Your task to perform on an android device: install app "Airtel Thanks" Image 0: 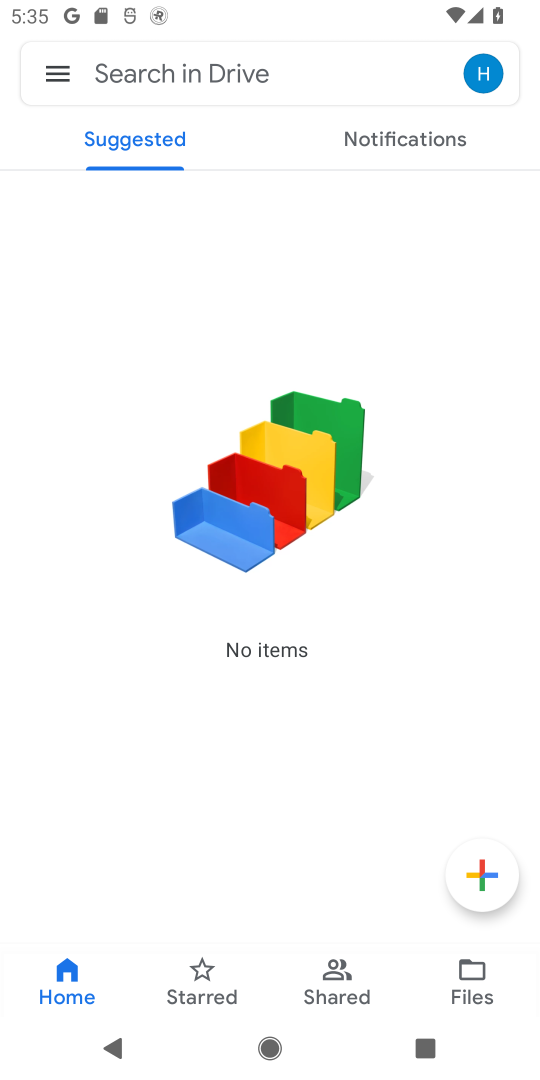
Step 0: press back button
Your task to perform on an android device: install app "Airtel Thanks" Image 1: 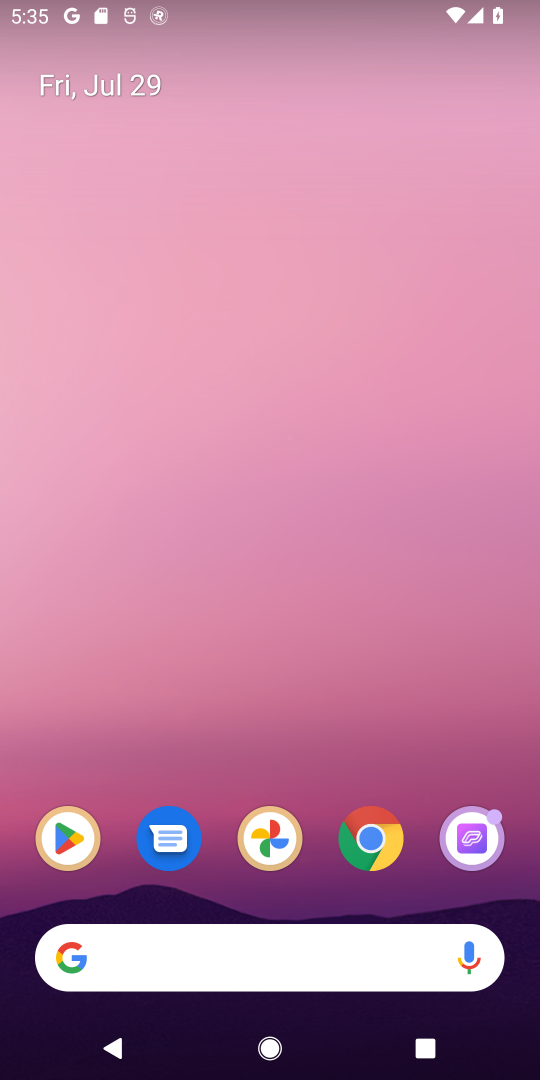
Step 1: click (55, 839)
Your task to perform on an android device: install app "Airtel Thanks" Image 2: 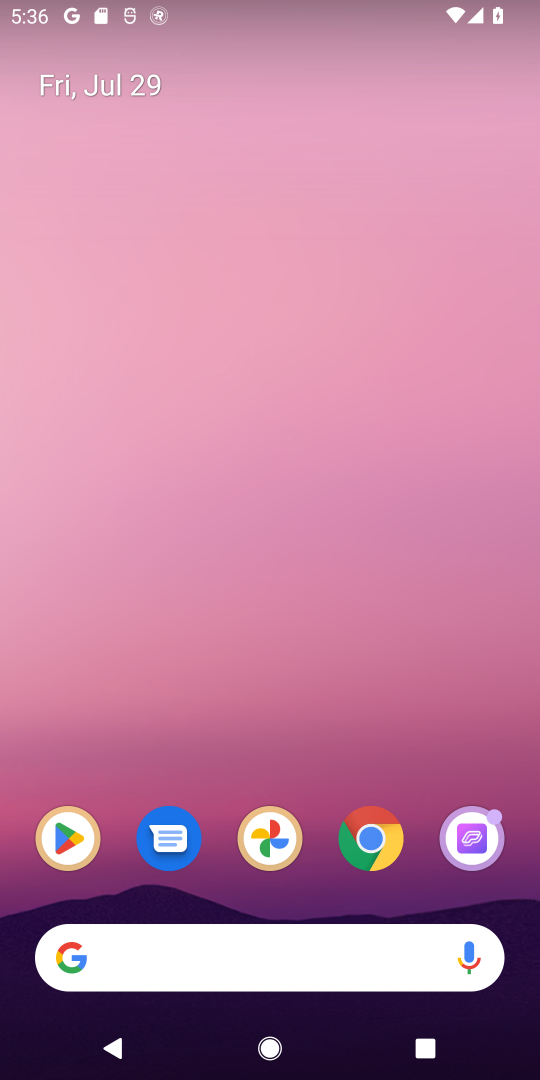
Step 2: click (14, 812)
Your task to perform on an android device: install app "Airtel Thanks" Image 3: 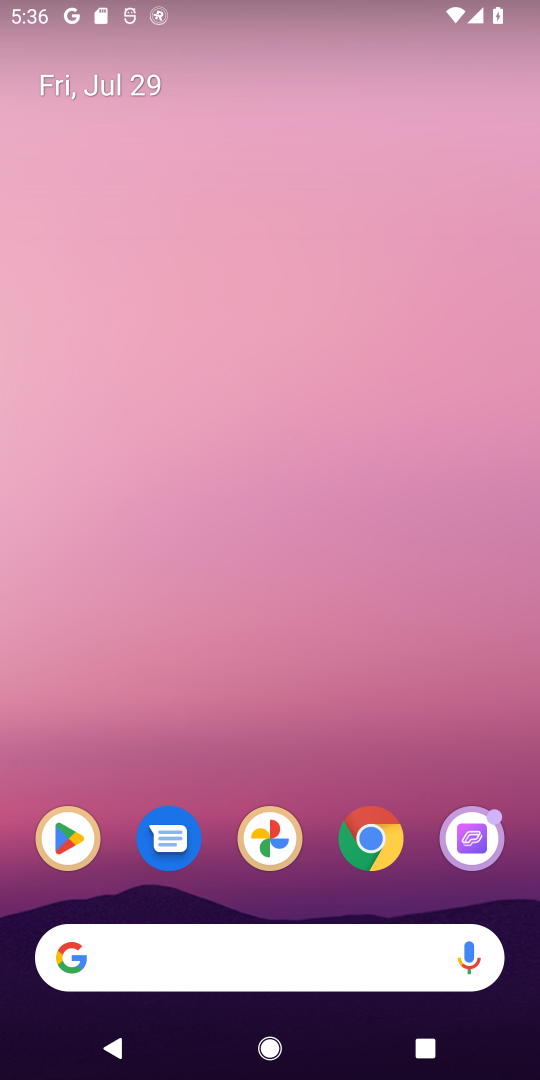
Step 3: click (44, 824)
Your task to perform on an android device: install app "Airtel Thanks" Image 4: 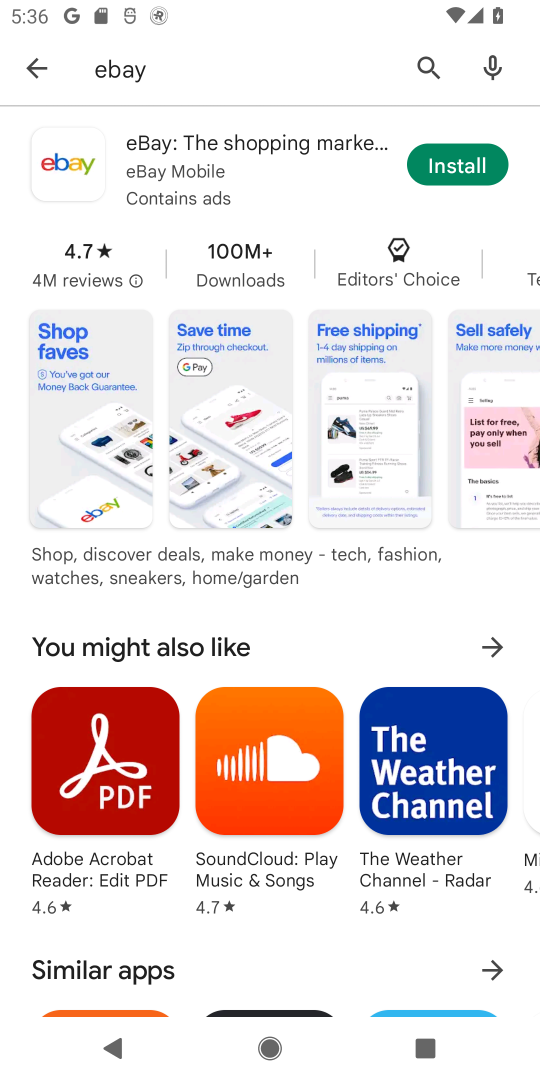
Step 4: click (414, 64)
Your task to perform on an android device: install app "Airtel Thanks" Image 5: 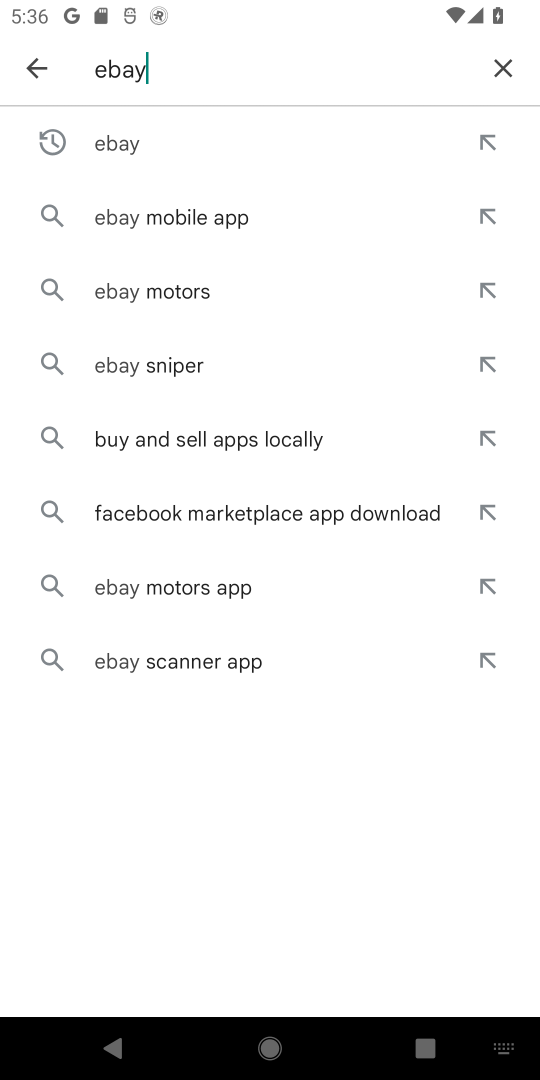
Step 5: click (513, 56)
Your task to perform on an android device: install app "Airtel Thanks" Image 6: 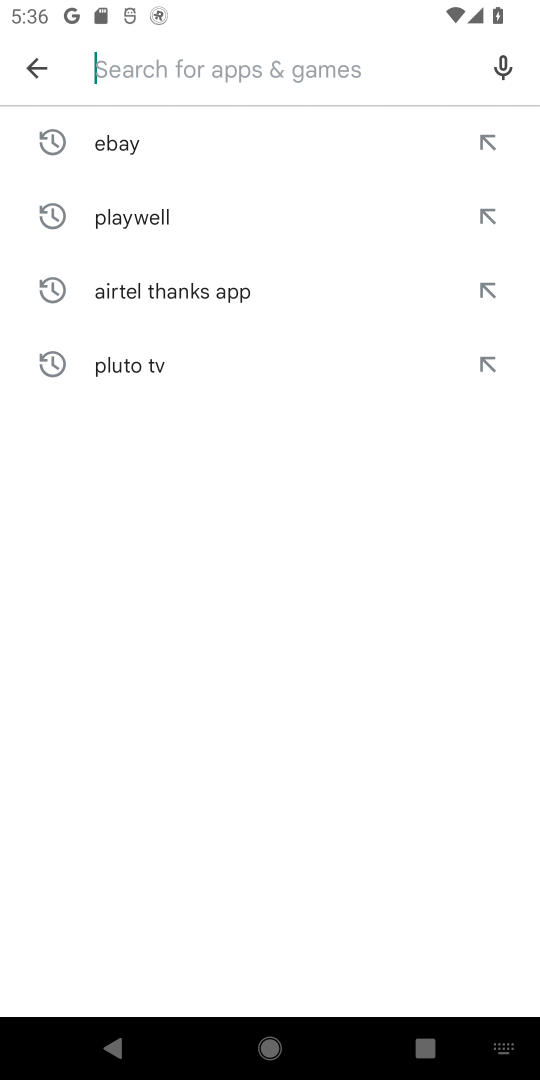
Step 6: type "airtel thanks"
Your task to perform on an android device: install app "Airtel Thanks" Image 7: 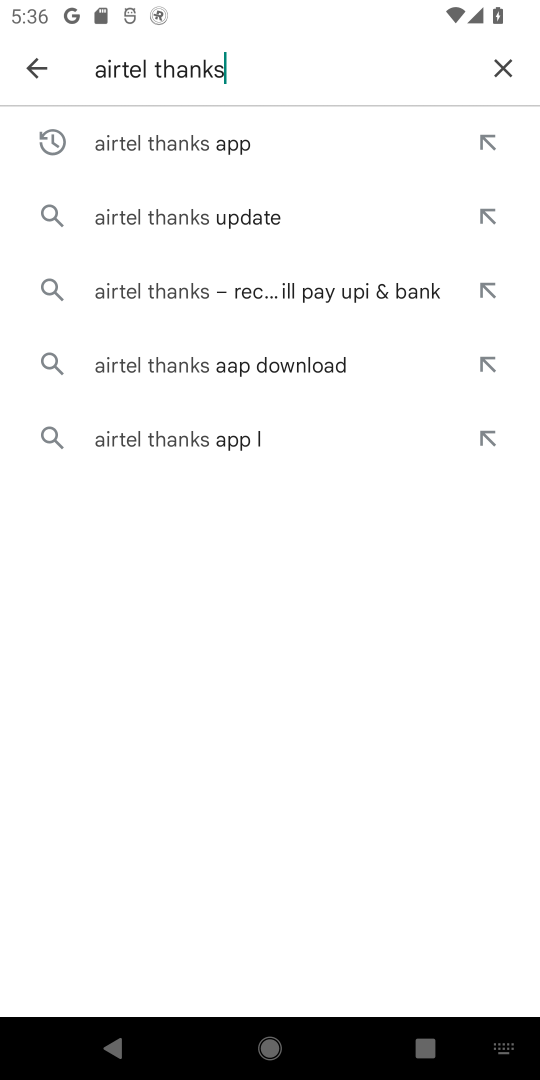
Step 7: click (246, 152)
Your task to perform on an android device: install app "Airtel Thanks" Image 8: 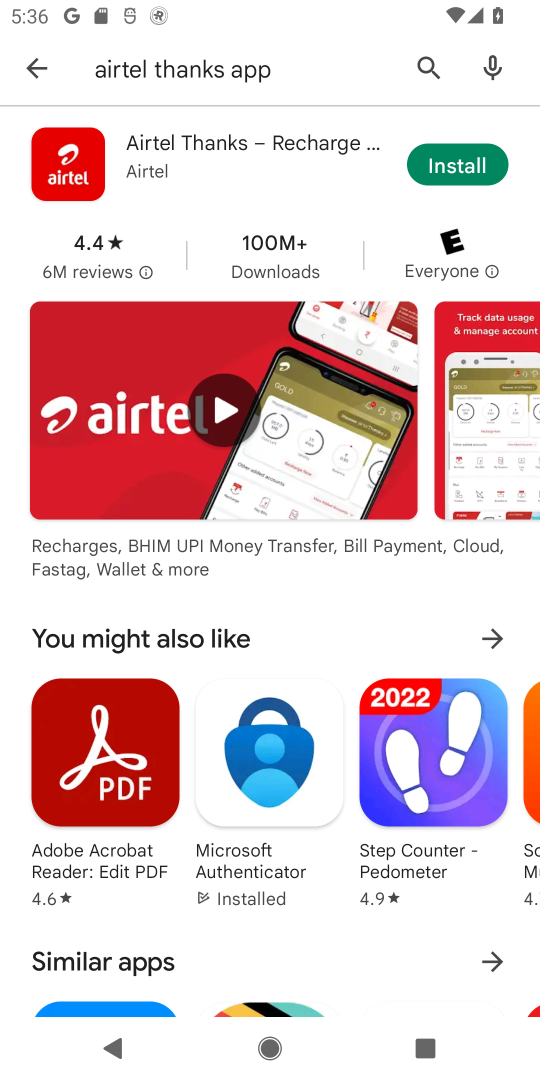
Step 8: click (477, 142)
Your task to perform on an android device: install app "Airtel Thanks" Image 9: 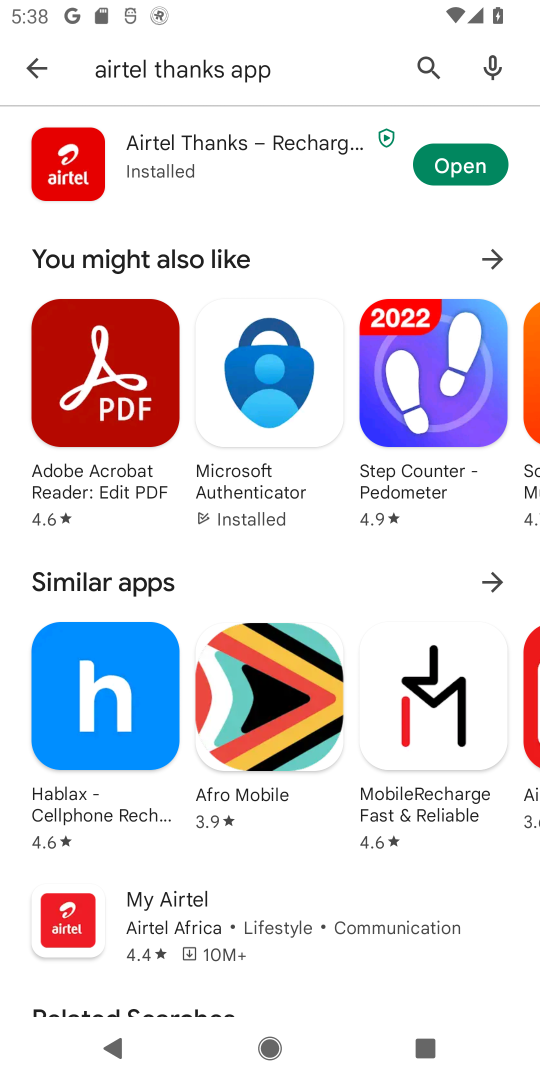
Step 9: click (446, 163)
Your task to perform on an android device: install app "Airtel Thanks" Image 10: 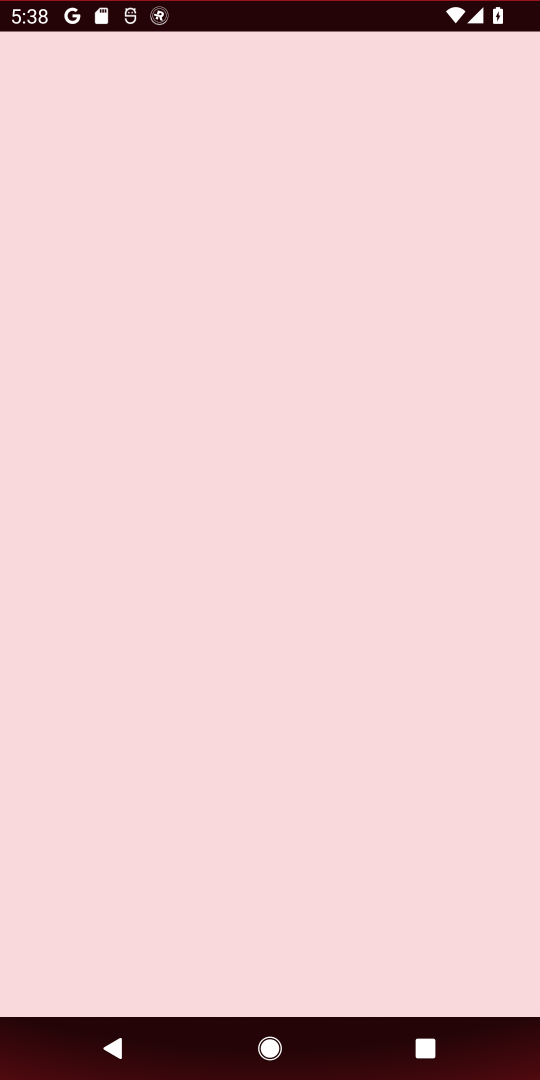
Step 10: task complete